Your task to perform on an android device: Open calendar and show me the first week of next month Image 0: 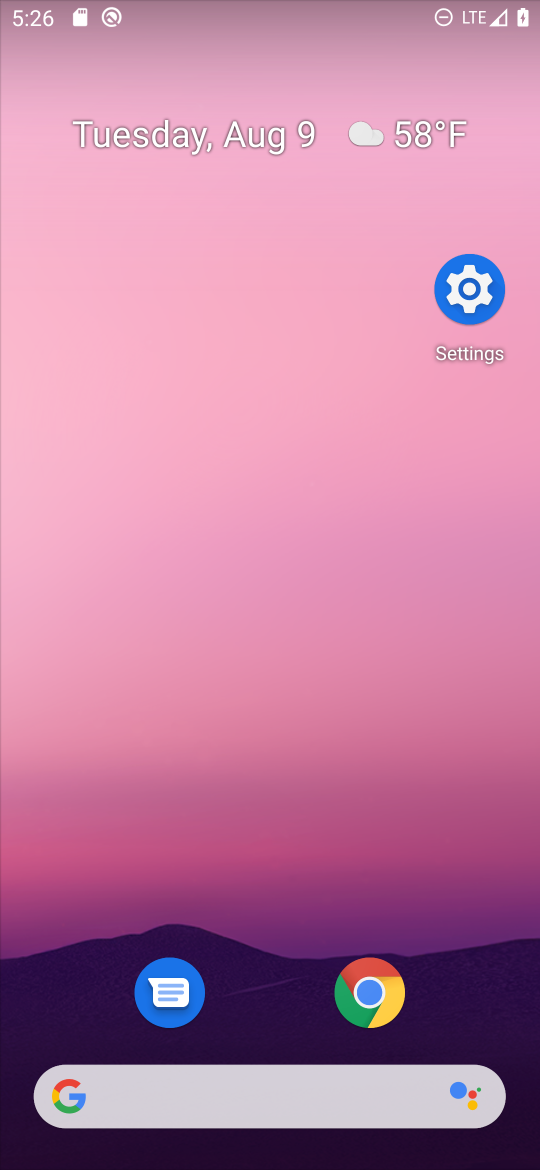
Step 0: drag from (293, 1029) to (298, 1)
Your task to perform on an android device: Open calendar and show me the first week of next month Image 1: 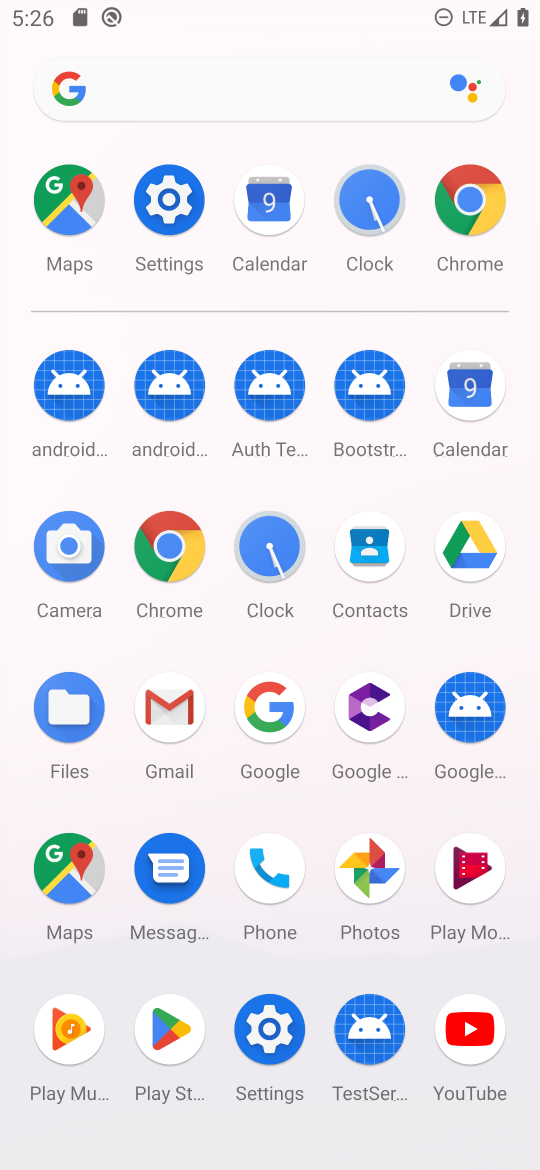
Step 1: click (452, 370)
Your task to perform on an android device: Open calendar and show me the first week of next month Image 2: 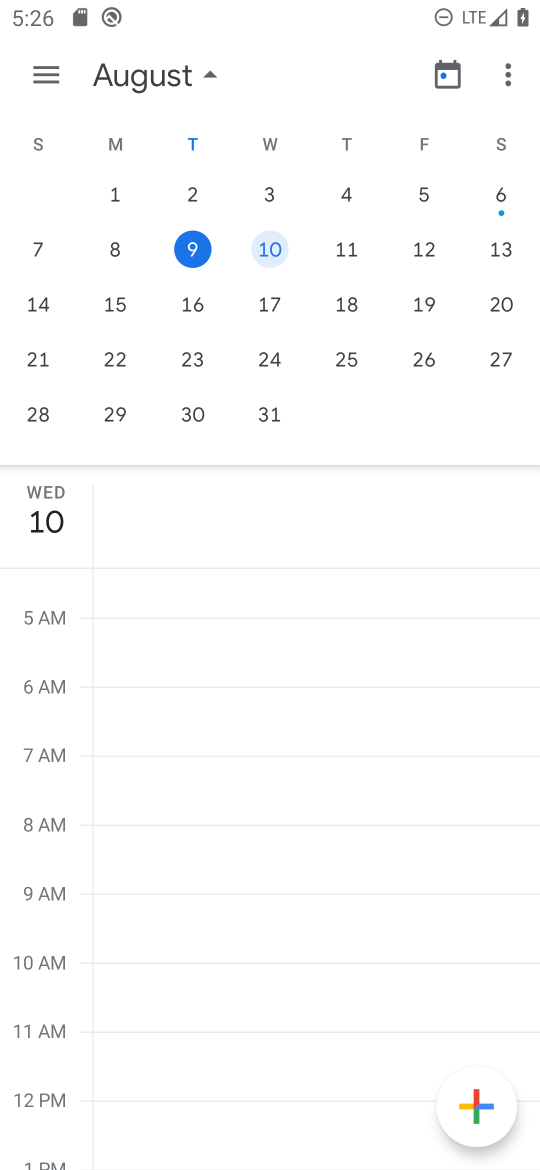
Step 2: drag from (459, 284) to (2, 315)
Your task to perform on an android device: Open calendar and show me the first week of next month Image 3: 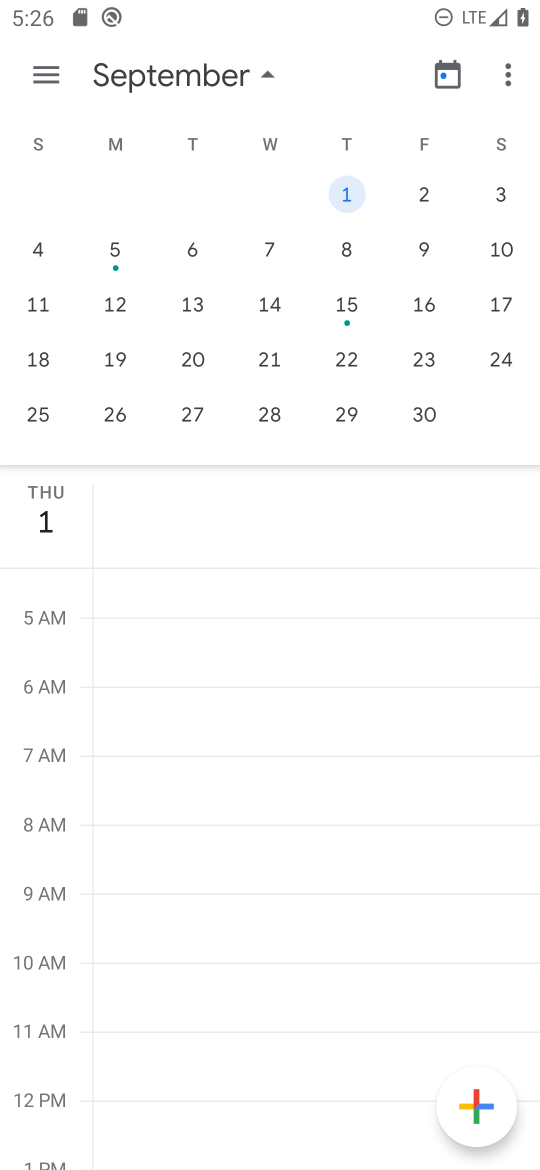
Step 3: click (270, 254)
Your task to perform on an android device: Open calendar and show me the first week of next month Image 4: 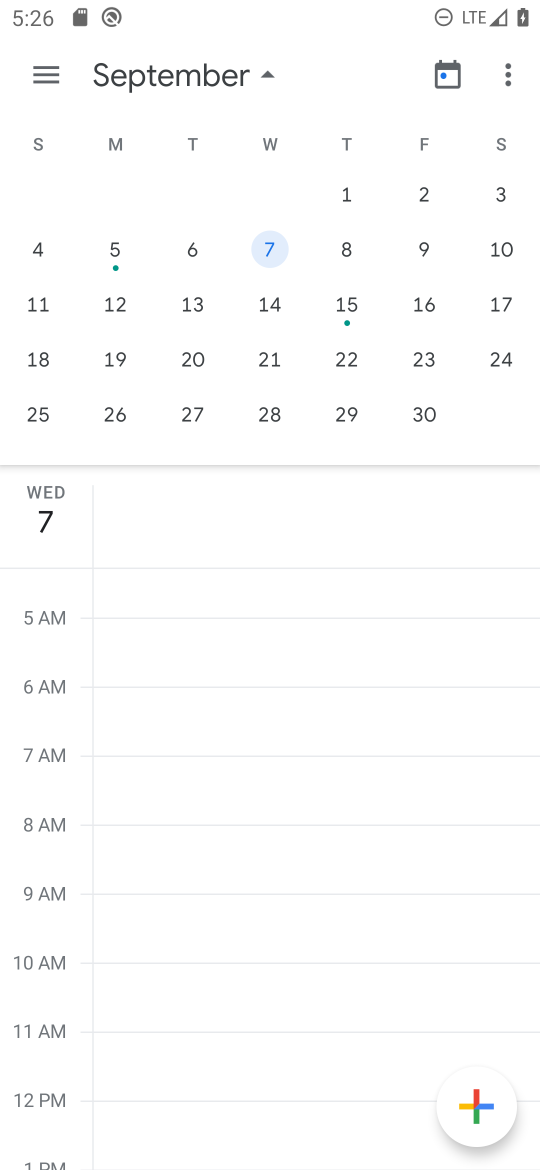
Step 4: task complete